Your task to perform on an android device: open a bookmark in the chrome app Image 0: 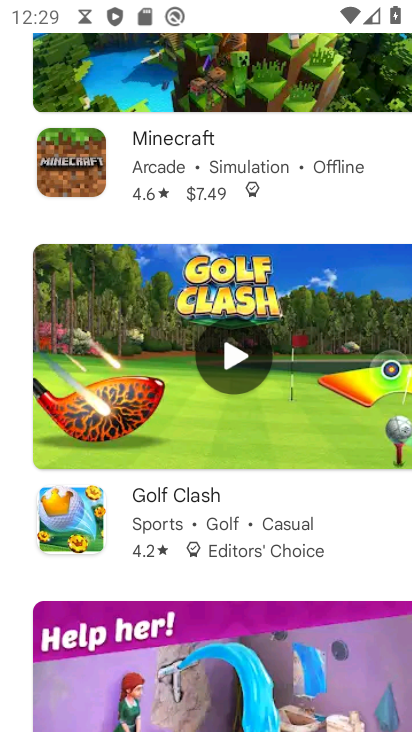
Step 0: press home button
Your task to perform on an android device: open a bookmark in the chrome app Image 1: 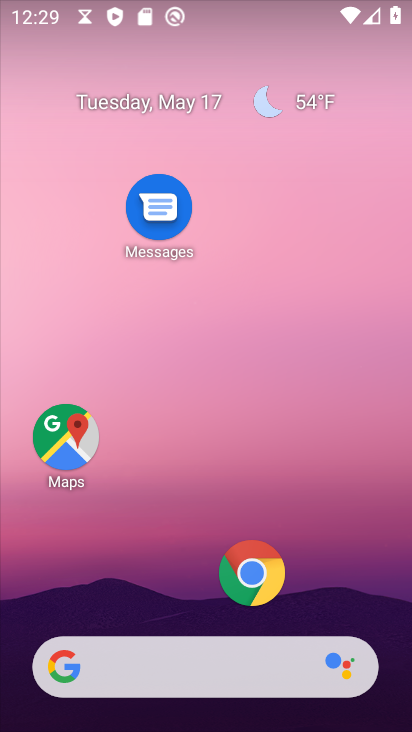
Step 1: drag from (315, 612) to (314, 145)
Your task to perform on an android device: open a bookmark in the chrome app Image 2: 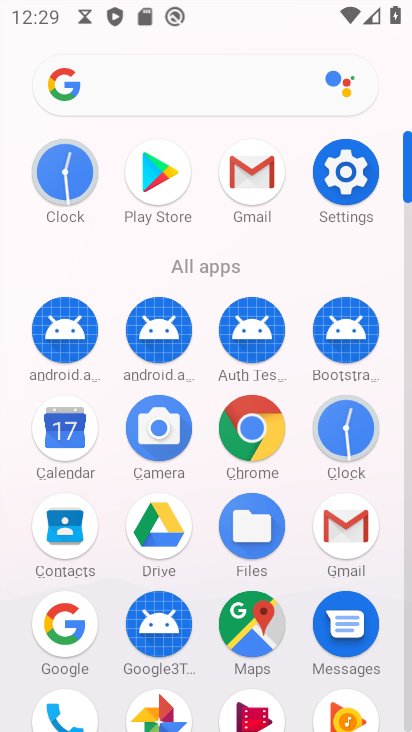
Step 2: click (250, 415)
Your task to perform on an android device: open a bookmark in the chrome app Image 3: 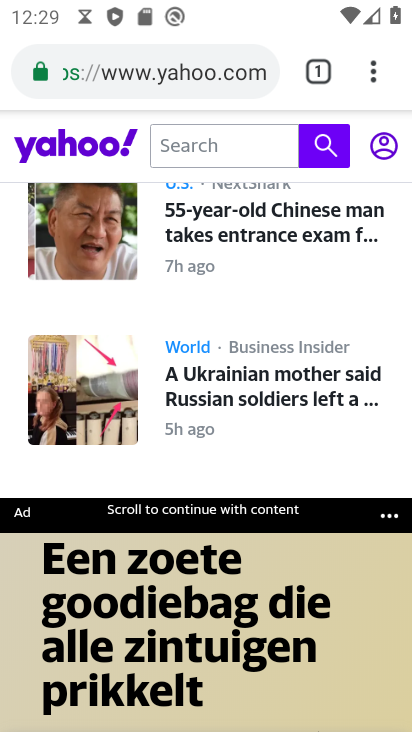
Step 3: click (376, 65)
Your task to perform on an android device: open a bookmark in the chrome app Image 4: 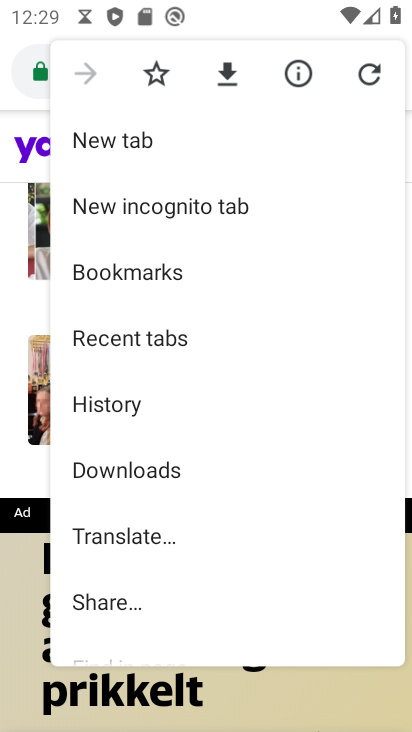
Step 4: click (187, 267)
Your task to perform on an android device: open a bookmark in the chrome app Image 5: 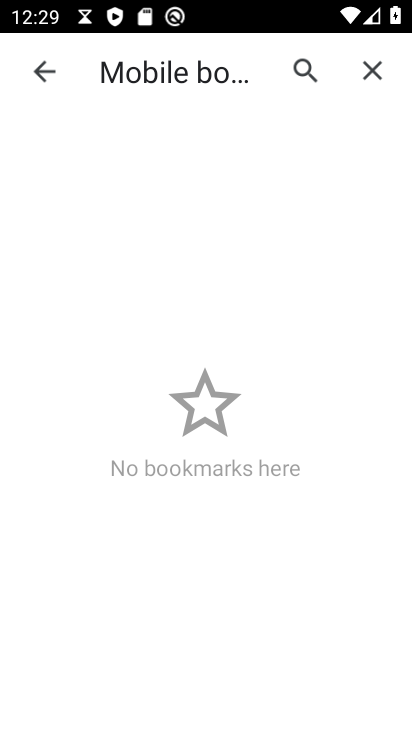
Step 5: task complete